Your task to perform on an android device: Open sound settings Image 0: 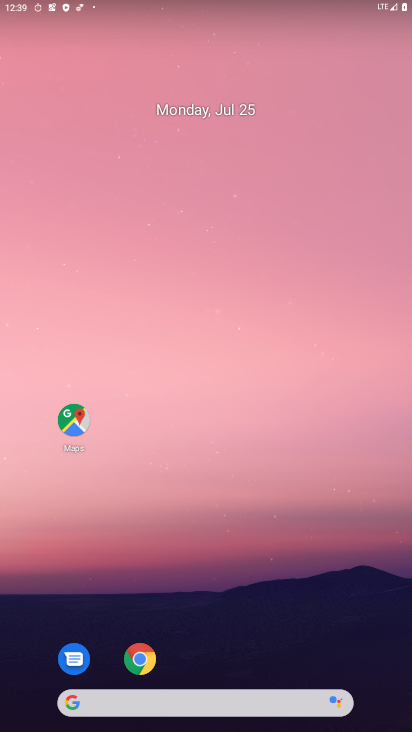
Step 0: click (311, 21)
Your task to perform on an android device: Open sound settings Image 1: 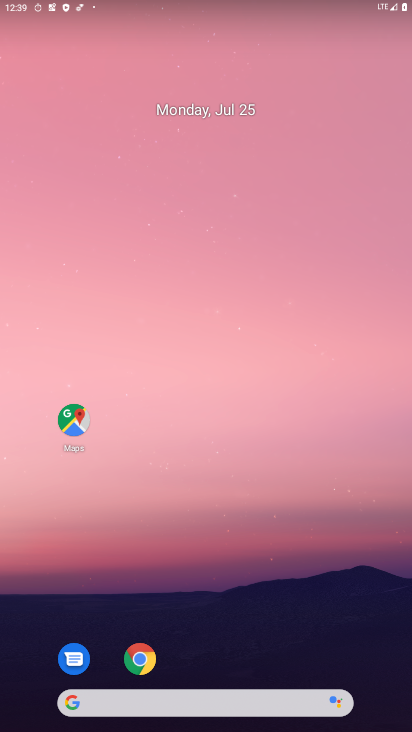
Step 1: drag from (25, 674) to (310, 228)
Your task to perform on an android device: Open sound settings Image 2: 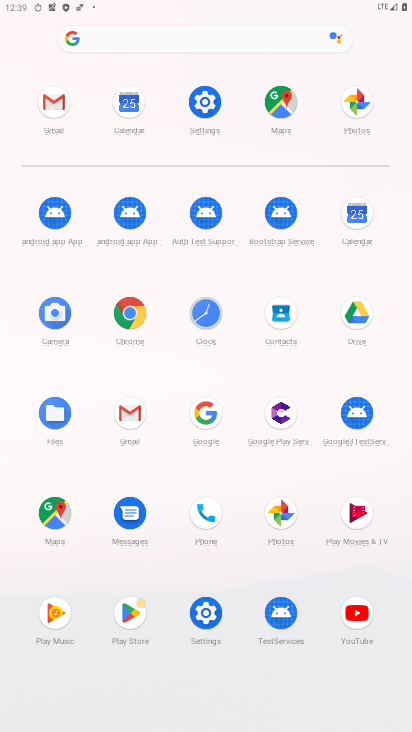
Step 2: click (198, 626)
Your task to perform on an android device: Open sound settings Image 3: 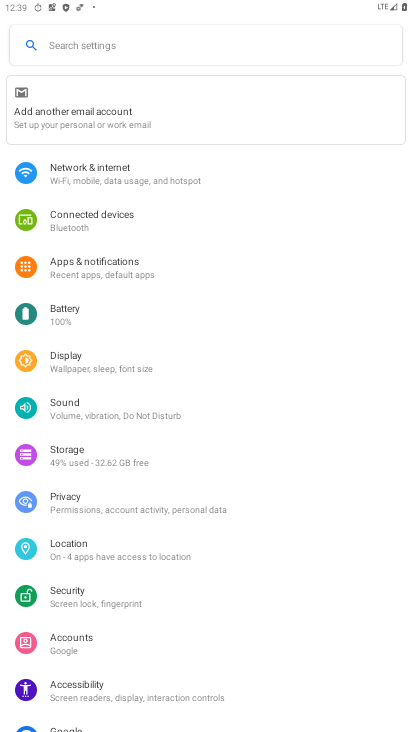
Step 3: click (95, 402)
Your task to perform on an android device: Open sound settings Image 4: 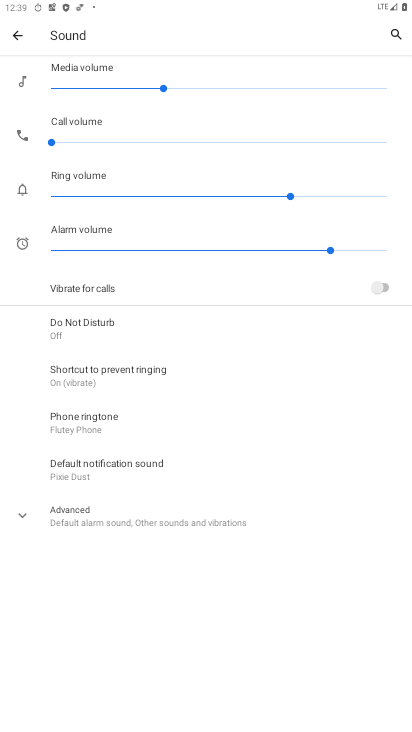
Step 4: task complete